Your task to perform on an android device: Open settings Image 0: 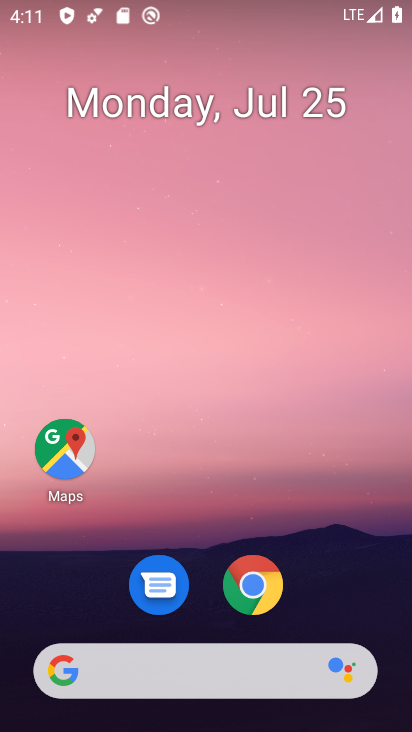
Step 0: drag from (327, 599) to (359, 0)
Your task to perform on an android device: Open settings Image 1: 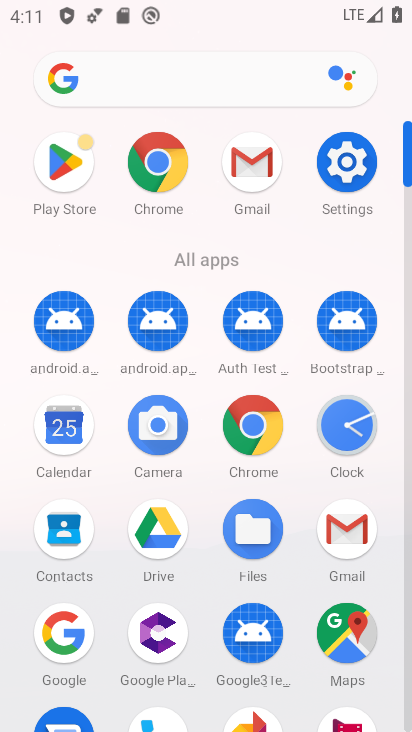
Step 1: click (352, 150)
Your task to perform on an android device: Open settings Image 2: 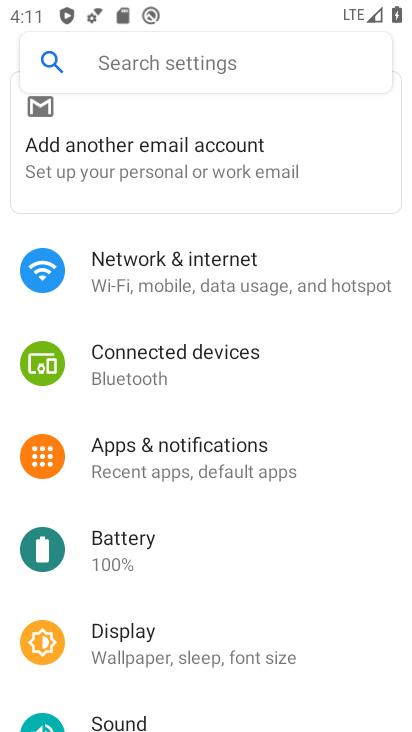
Step 2: task complete